Your task to perform on an android device: choose inbox layout in the gmail app Image 0: 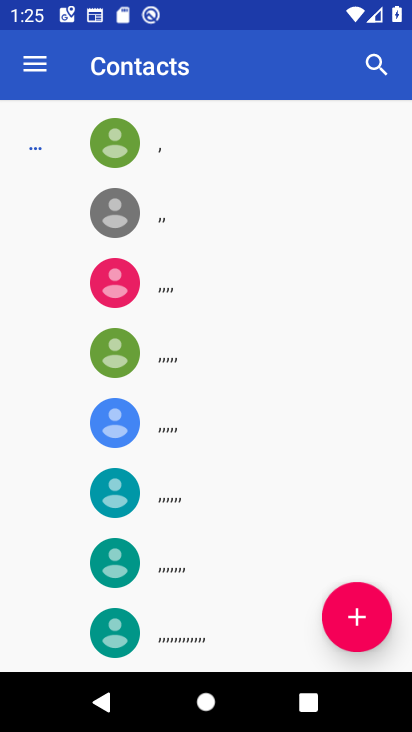
Step 0: press home button
Your task to perform on an android device: choose inbox layout in the gmail app Image 1: 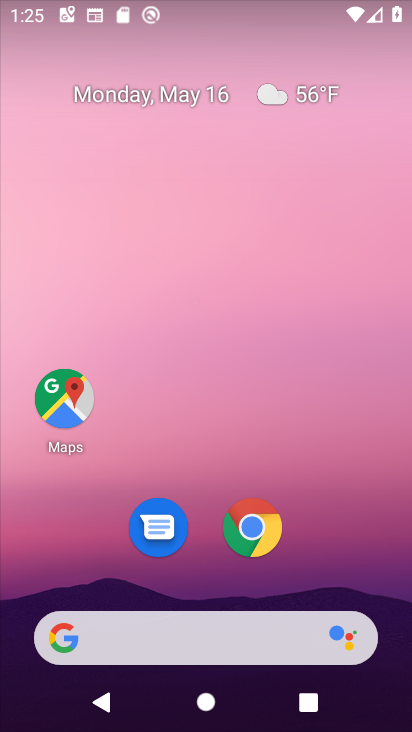
Step 1: drag from (167, 629) to (111, 262)
Your task to perform on an android device: choose inbox layout in the gmail app Image 2: 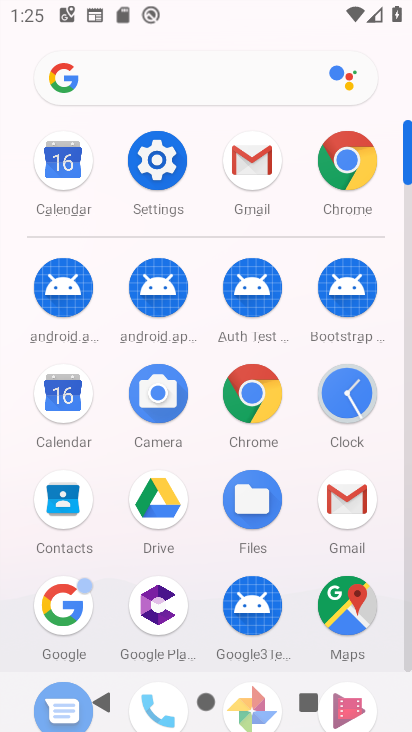
Step 2: click (256, 163)
Your task to perform on an android device: choose inbox layout in the gmail app Image 3: 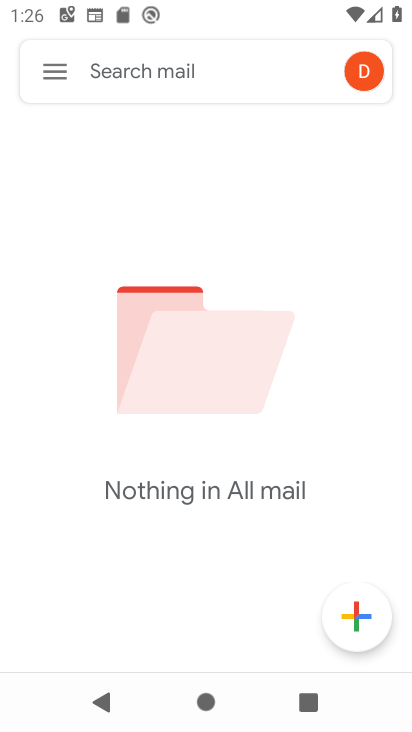
Step 3: click (39, 78)
Your task to perform on an android device: choose inbox layout in the gmail app Image 4: 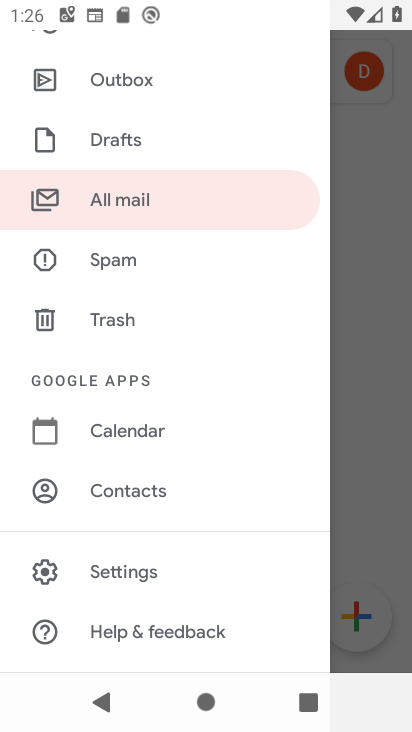
Step 4: click (139, 572)
Your task to perform on an android device: choose inbox layout in the gmail app Image 5: 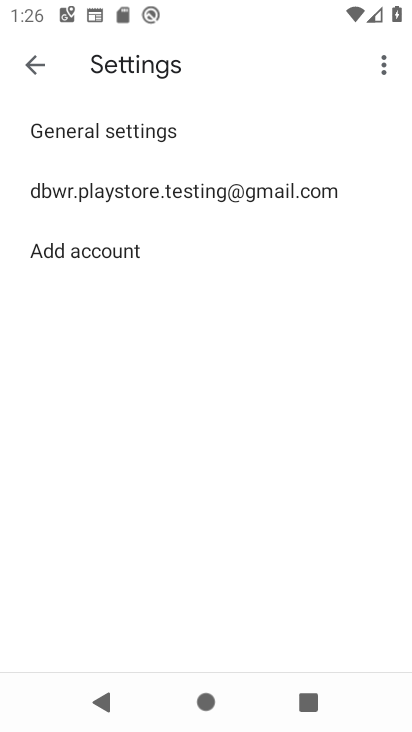
Step 5: click (149, 180)
Your task to perform on an android device: choose inbox layout in the gmail app Image 6: 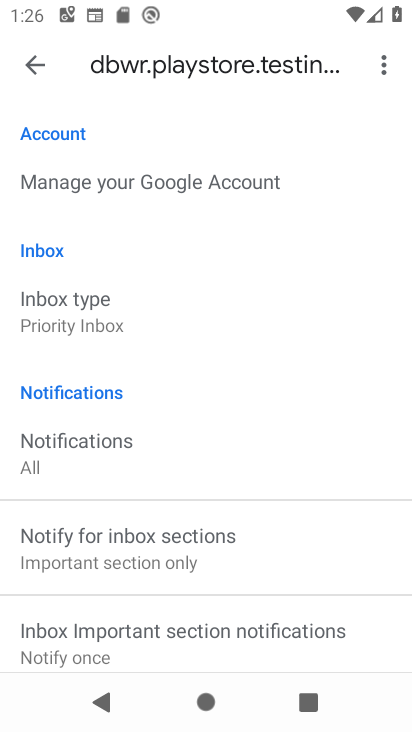
Step 6: click (96, 341)
Your task to perform on an android device: choose inbox layout in the gmail app Image 7: 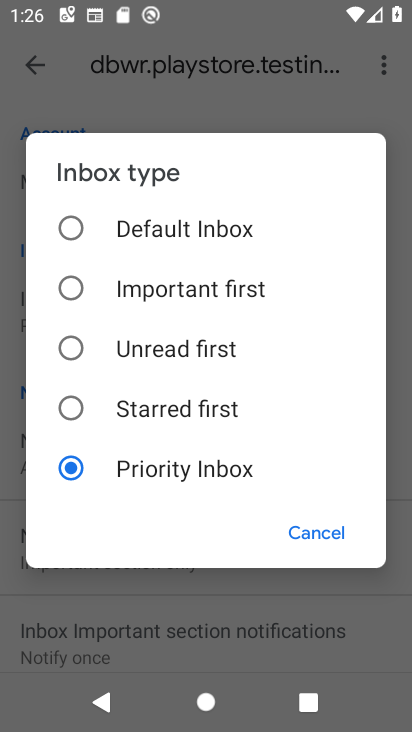
Step 7: click (149, 237)
Your task to perform on an android device: choose inbox layout in the gmail app Image 8: 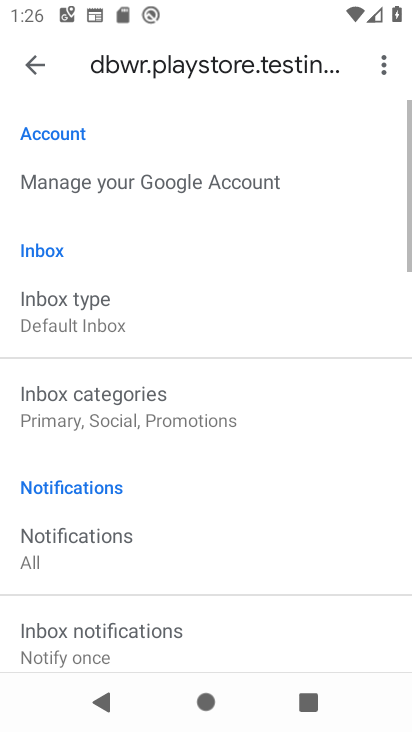
Step 8: task complete